Your task to perform on an android device: turn on showing notifications on the lock screen Image 0: 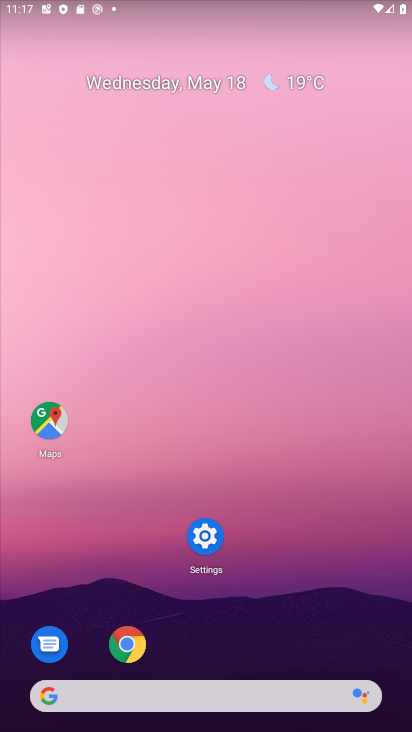
Step 0: drag from (339, 572) to (310, 141)
Your task to perform on an android device: turn on showing notifications on the lock screen Image 1: 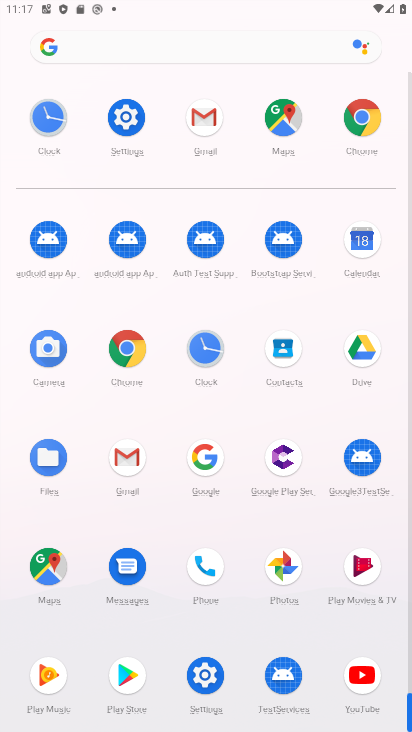
Step 1: click (128, 120)
Your task to perform on an android device: turn on showing notifications on the lock screen Image 2: 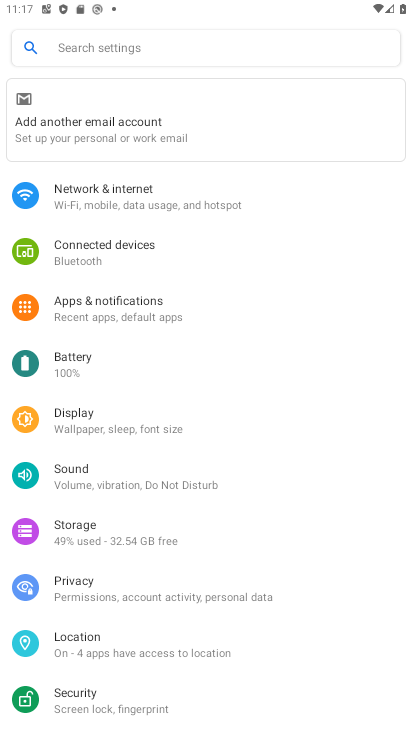
Step 2: click (152, 303)
Your task to perform on an android device: turn on showing notifications on the lock screen Image 3: 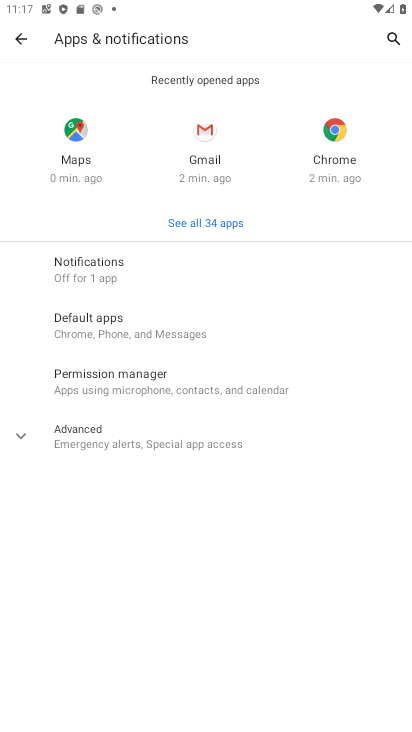
Step 3: click (172, 265)
Your task to perform on an android device: turn on showing notifications on the lock screen Image 4: 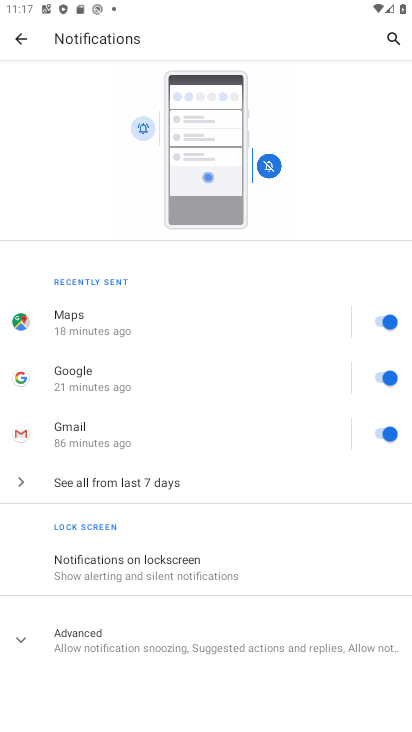
Step 4: click (194, 570)
Your task to perform on an android device: turn on showing notifications on the lock screen Image 5: 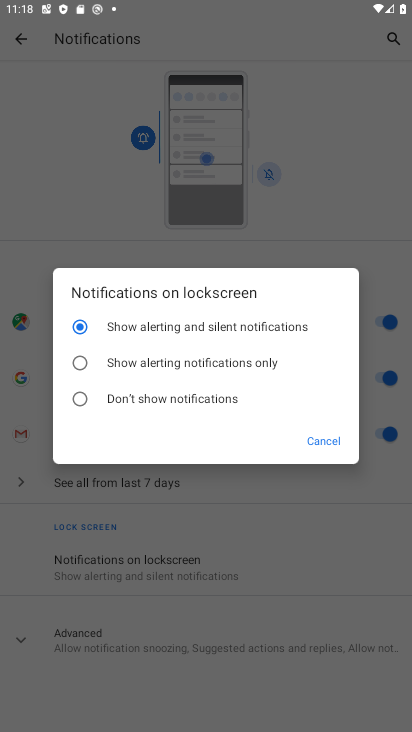
Step 5: click (217, 367)
Your task to perform on an android device: turn on showing notifications on the lock screen Image 6: 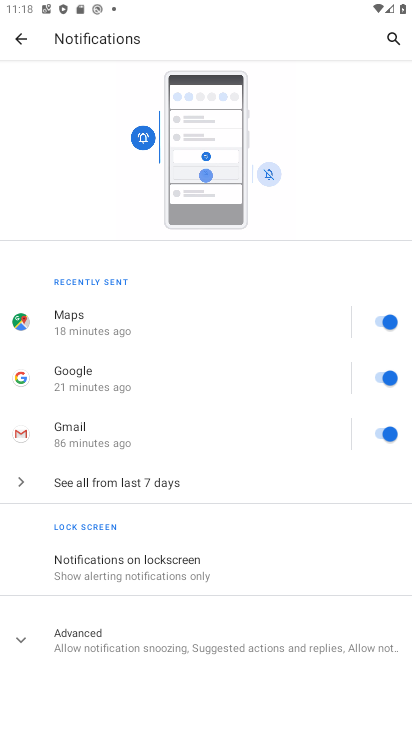
Step 6: task complete